Your task to perform on an android device: What's on my calendar tomorrow? Image 0: 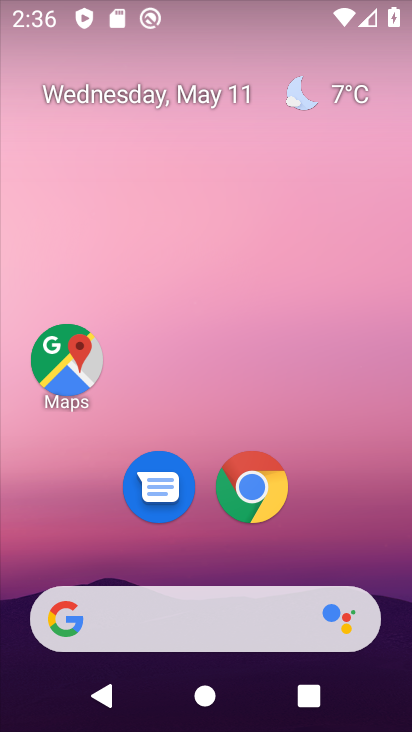
Step 0: drag from (200, 643) to (260, 30)
Your task to perform on an android device: What's on my calendar tomorrow? Image 1: 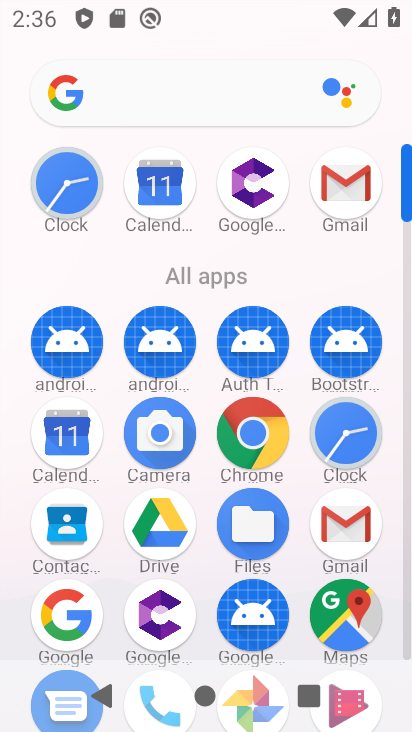
Step 1: click (88, 428)
Your task to perform on an android device: What's on my calendar tomorrow? Image 2: 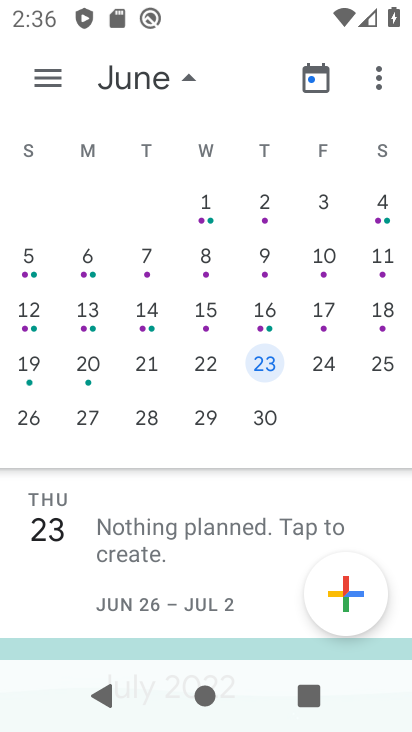
Step 2: drag from (116, 229) to (405, 245)
Your task to perform on an android device: What's on my calendar tomorrow? Image 3: 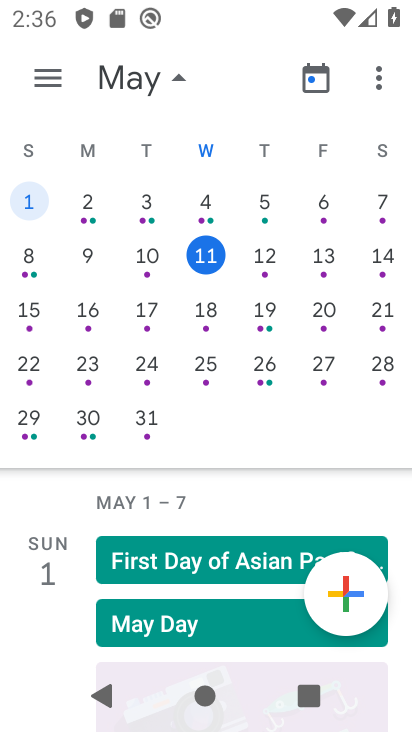
Step 3: click (267, 258)
Your task to perform on an android device: What's on my calendar tomorrow? Image 4: 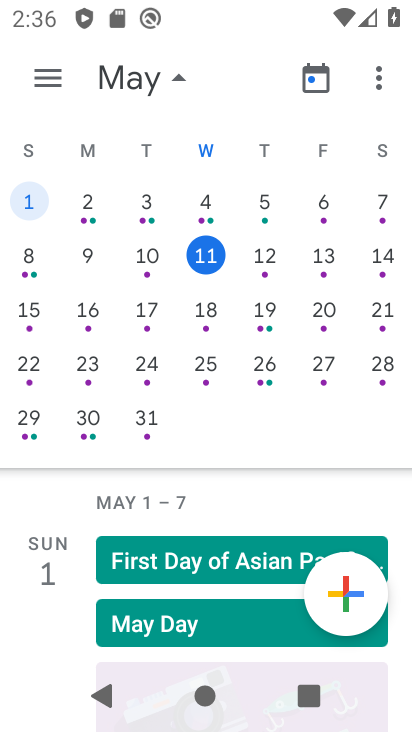
Step 4: click (267, 258)
Your task to perform on an android device: What's on my calendar tomorrow? Image 5: 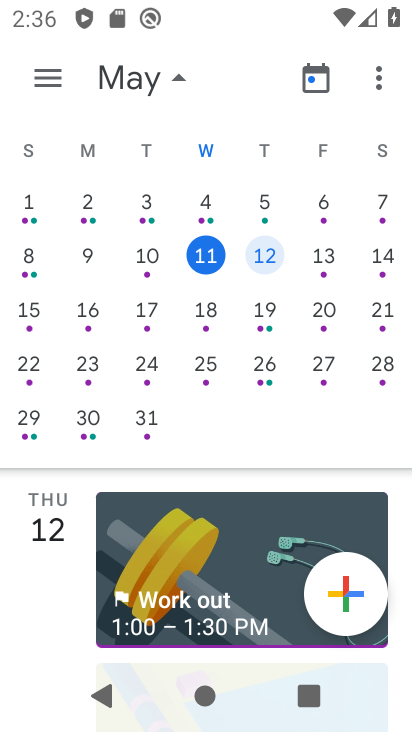
Step 5: click (271, 251)
Your task to perform on an android device: What's on my calendar tomorrow? Image 6: 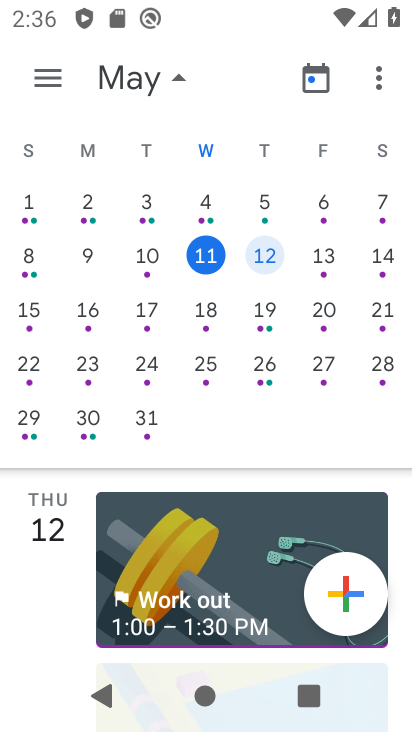
Step 6: task complete